Your task to perform on an android device: check storage Image 0: 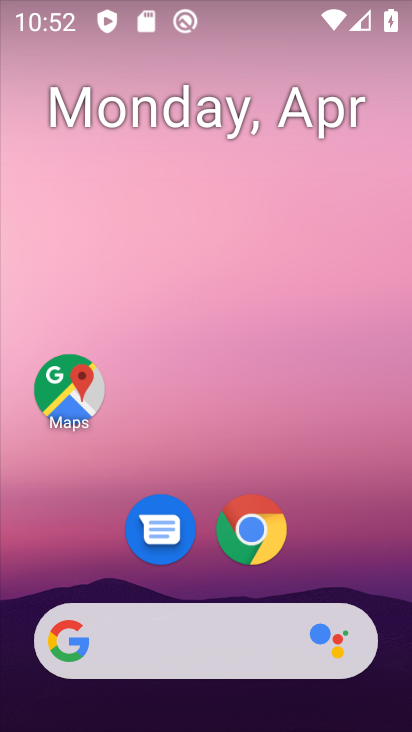
Step 0: drag from (388, 598) to (290, 86)
Your task to perform on an android device: check storage Image 1: 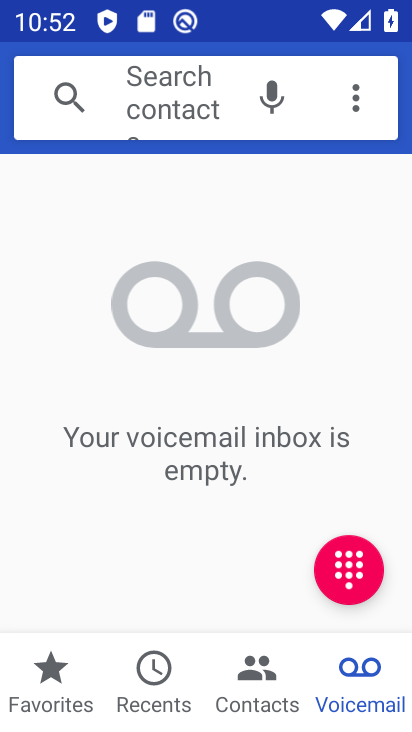
Step 1: press home button
Your task to perform on an android device: check storage Image 2: 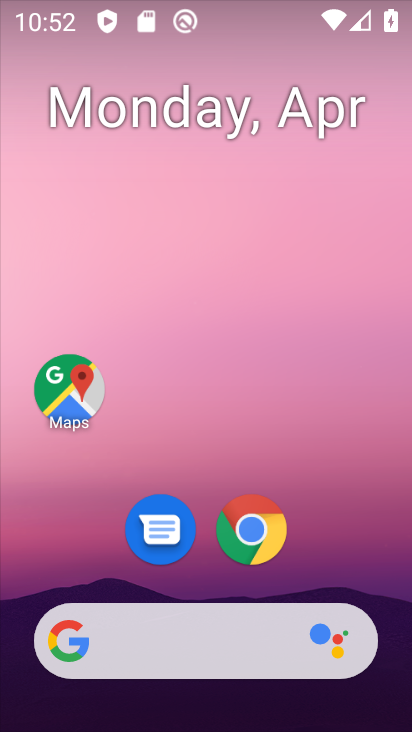
Step 2: drag from (374, 595) to (237, 14)
Your task to perform on an android device: check storage Image 3: 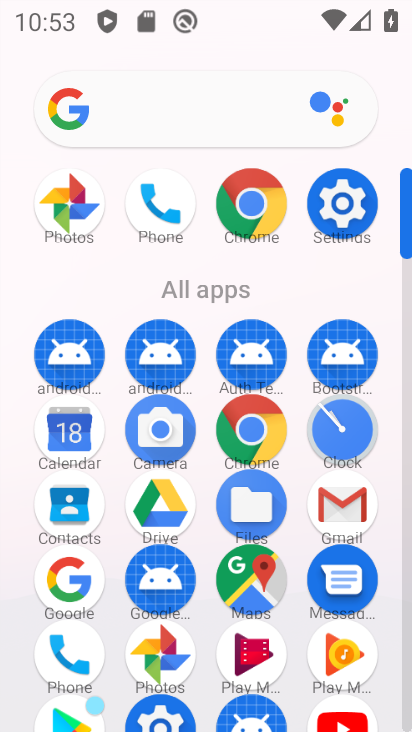
Step 3: click (323, 185)
Your task to perform on an android device: check storage Image 4: 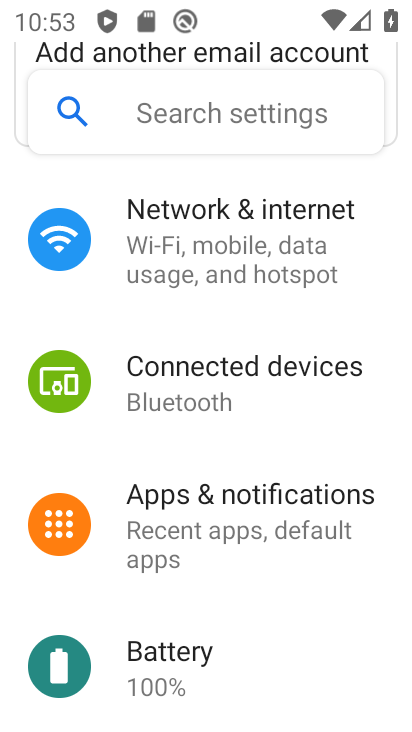
Step 4: drag from (169, 638) to (213, 121)
Your task to perform on an android device: check storage Image 5: 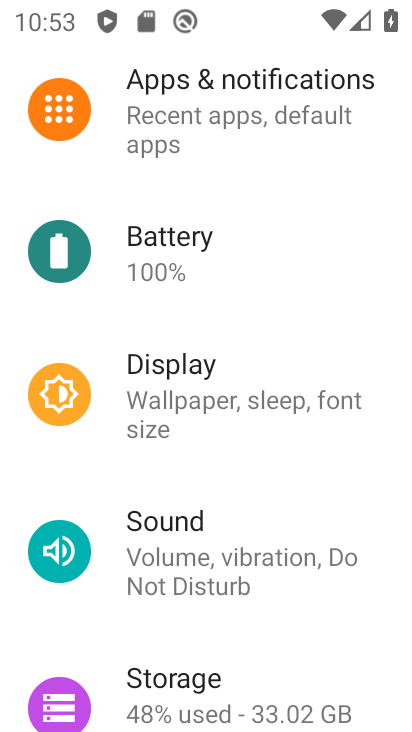
Step 5: drag from (166, 588) to (229, 291)
Your task to perform on an android device: check storage Image 6: 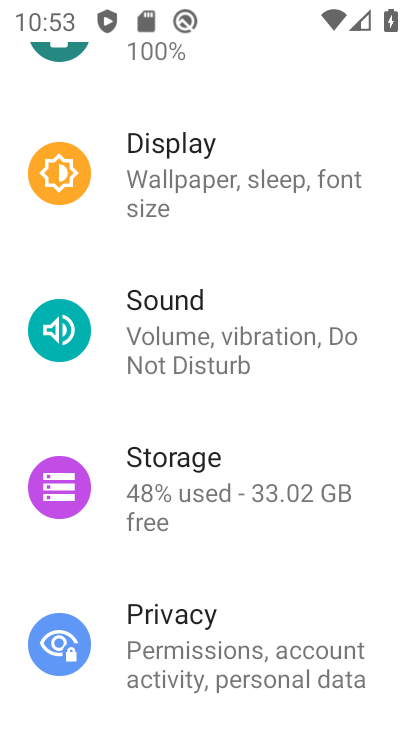
Step 6: click (176, 466)
Your task to perform on an android device: check storage Image 7: 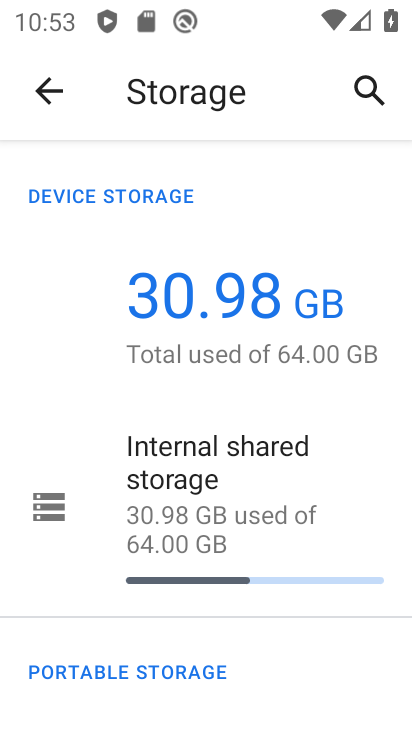
Step 7: click (264, 310)
Your task to perform on an android device: check storage Image 8: 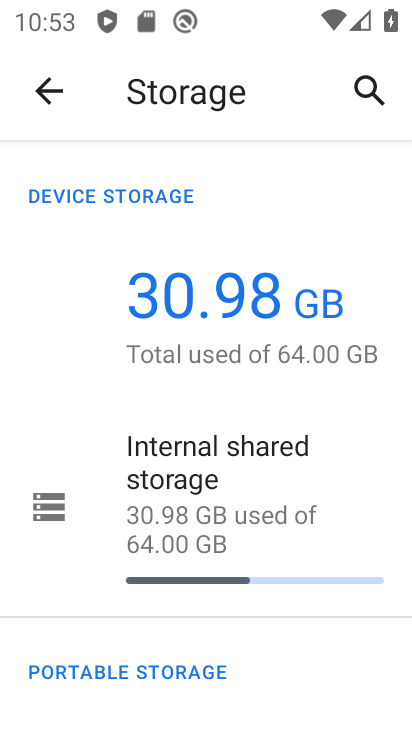
Step 8: click (195, 505)
Your task to perform on an android device: check storage Image 9: 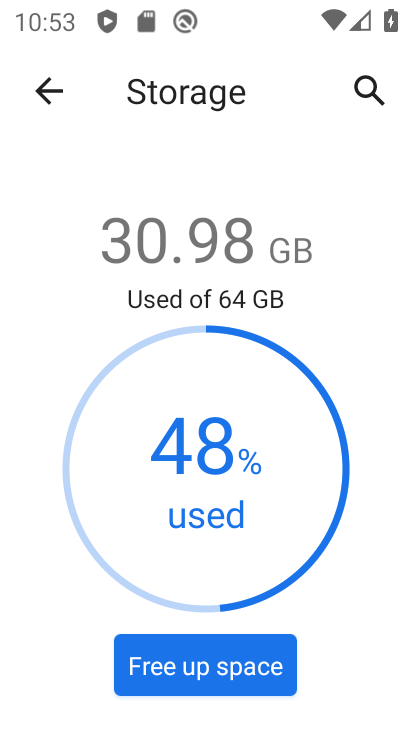
Step 9: task complete